Your task to perform on an android device: Add "panasonic triple a" to the cart on ebay.com Image 0: 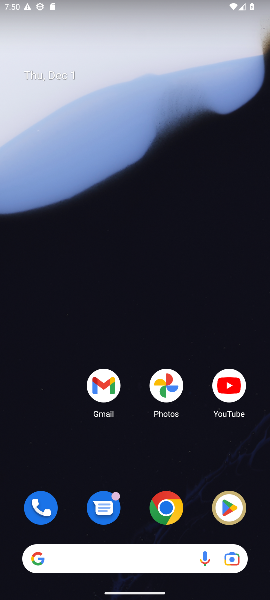
Step 0: click (164, 504)
Your task to perform on an android device: Add "panasonic triple a" to the cart on ebay.com Image 1: 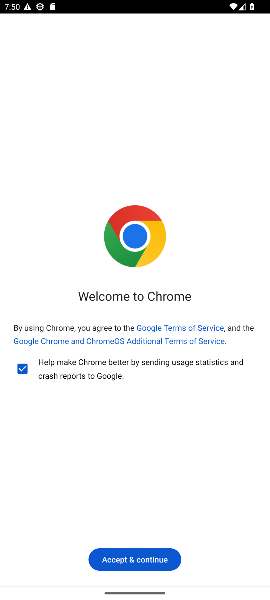
Step 1: click (134, 560)
Your task to perform on an android device: Add "panasonic triple a" to the cart on ebay.com Image 2: 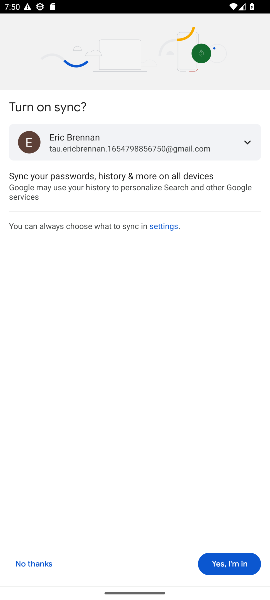
Step 2: click (230, 562)
Your task to perform on an android device: Add "panasonic triple a" to the cart on ebay.com Image 3: 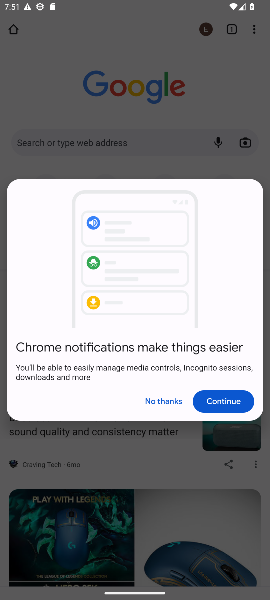
Step 3: click (170, 398)
Your task to perform on an android device: Add "panasonic triple a" to the cart on ebay.com Image 4: 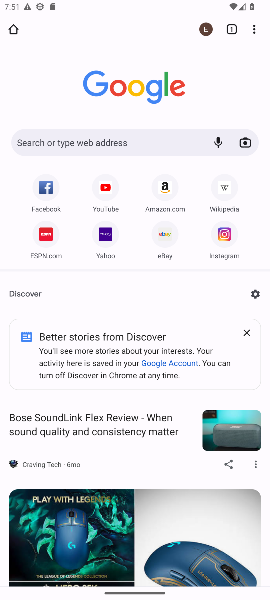
Step 4: click (91, 147)
Your task to perform on an android device: Add "panasonic triple a" to the cart on ebay.com Image 5: 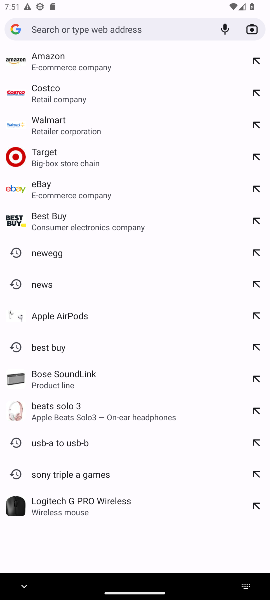
Step 5: click (56, 190)
Your task to perform on an android device: Add "panasonic triple a" to the cart on ebay.com Image 6: 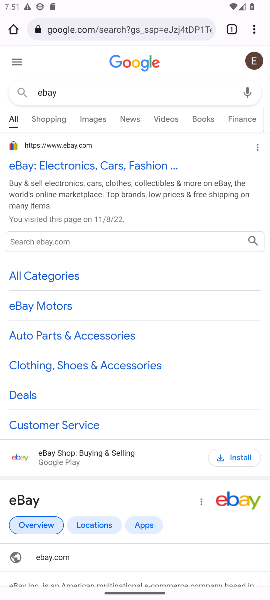
Step 6: click (74, 166)
Your task to perform on an android device: Add "panasonic triple a" to the cart on ebay.com Image 7: 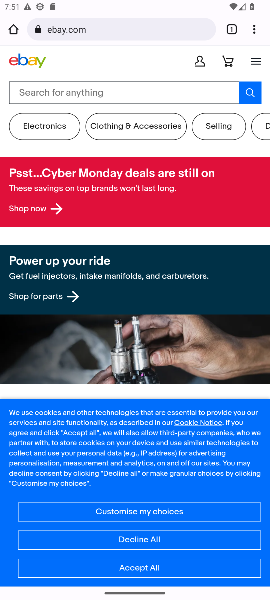
Step 7: click (149, 93)
Your task to perform on an android device: Add "panasonic triple a" to the cart on ebay.com Image 8: 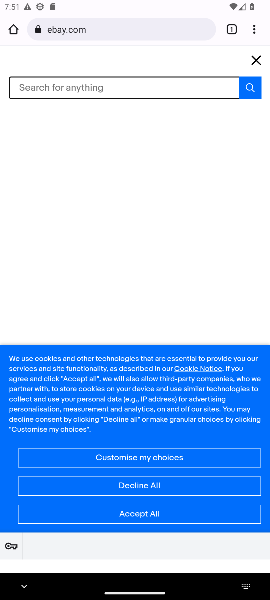
Step 8: type "panasonic triple a"
Your task to perform on an android device: Add "panasonic triple a" to the cart on ebay.com Image 9: 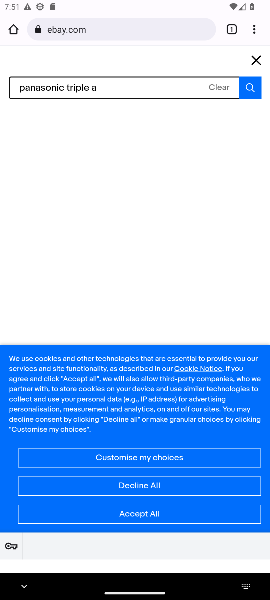
Step 9: click (249, 85)
Your task to perform on an android device: Add "panasonic triple a" to the cart on ebay.com Image 10: 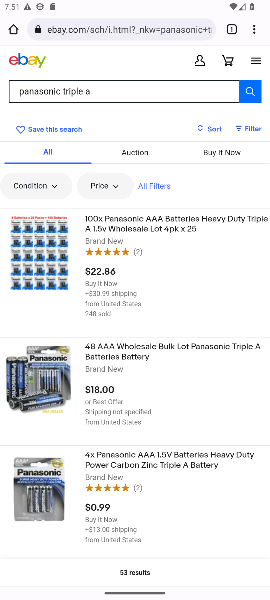
Step 10: click (104, 346)
Your task to perform on an android device: Add "panasonic triple a" to the cart on ebay.com Image 11: 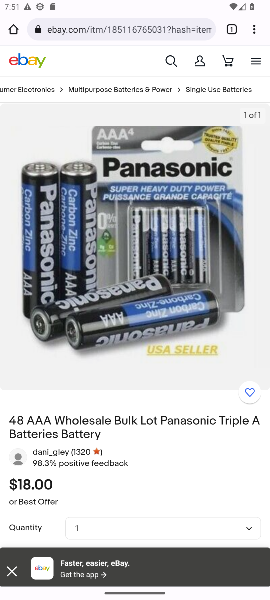
Step 11: drag from (156, 486) to (156, 313)
Your task to perform on an android device: Add "panasonic triple a" to the cart on ebay.com Image 12: 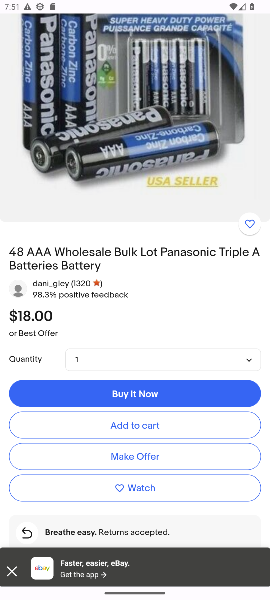
Step 12: click (136, 423)
Your task to perform on an android device: Add "panasonic triple a" to the cart on ebay.com Image 13: 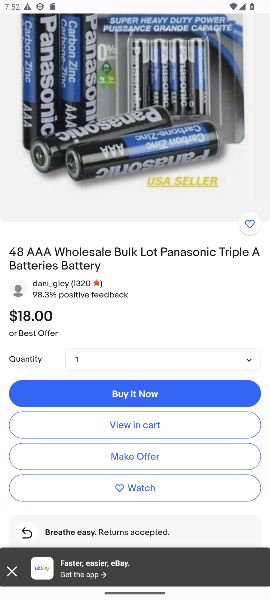
Step 13: task complete